Your task to perform on an android device: Open Google Image 0: 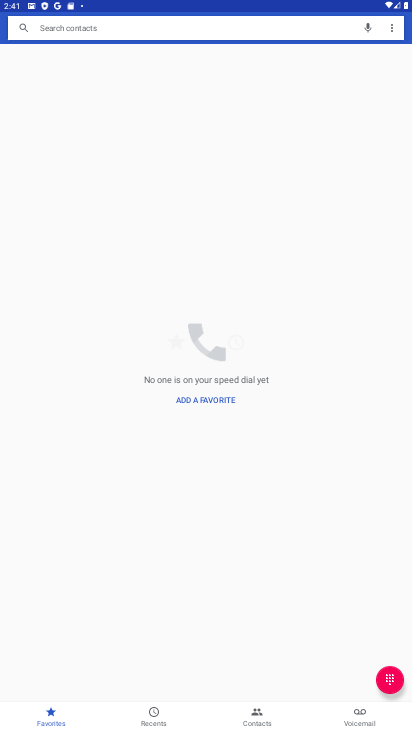
Step 0: press home button
Your task to perform on an android device: Open Google Image 1: 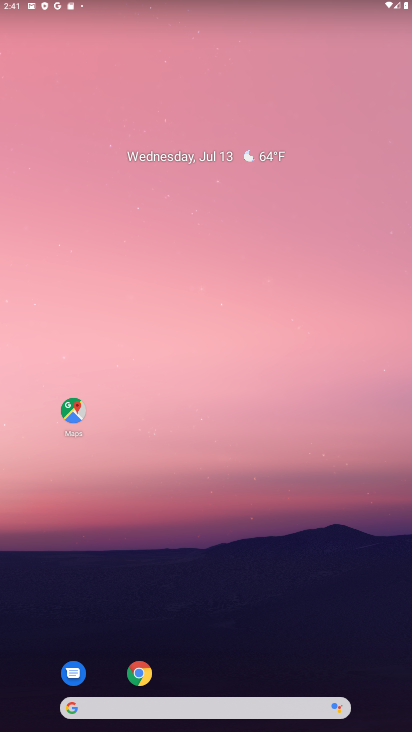
Step 1: drag from (259, 646) to (296, 71)
Your task to perform on an android device: Open Google Image 2: 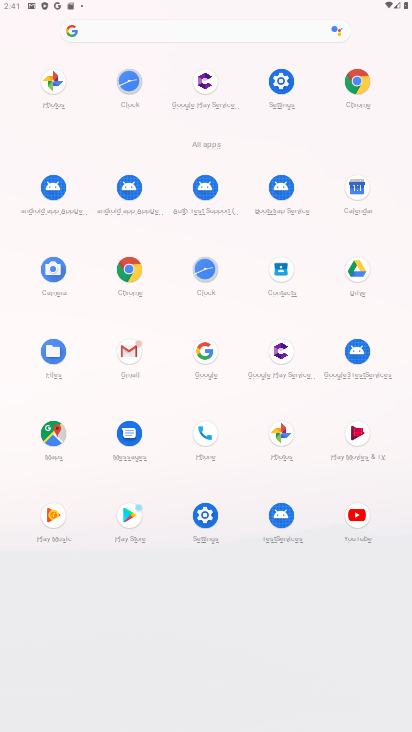
Step 2: click (203, 345)
Your task to perform on an android device: Open Google Image 3: 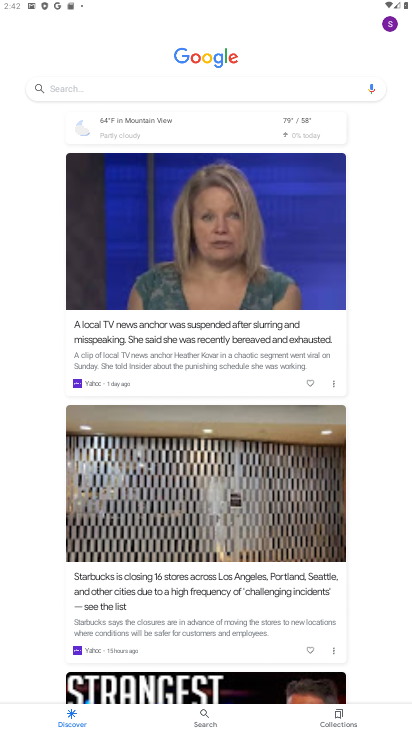
Step 3: task complete